Your task to perform on an android device: change your default location settings in chrome Image 0: 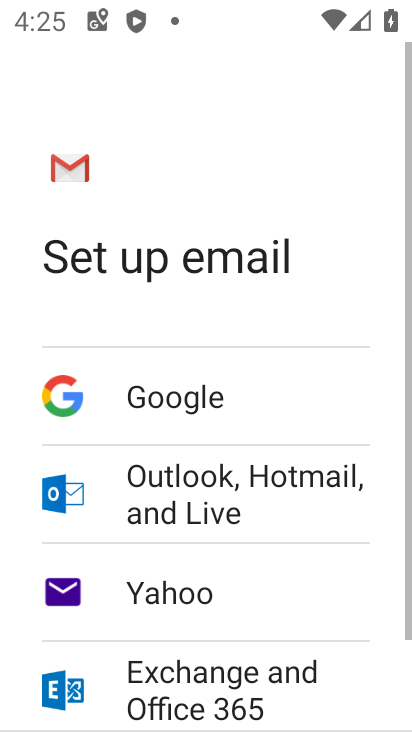
Step 0: press home button
Your task to perform on an android device: change your default location settings in chrome Image 1: 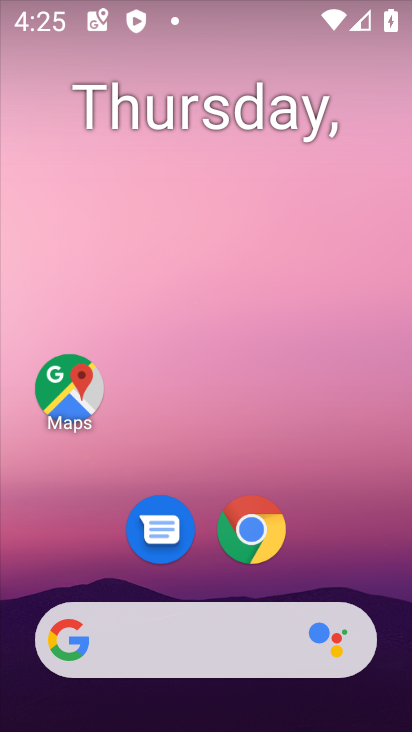
Step 1: click (253, 538)
Your task to perform on an android device: change your default location settings in chrome Image 2: 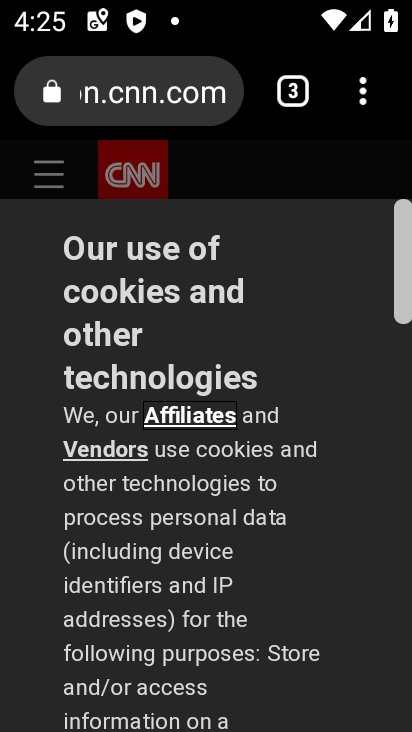
Step 2: click (366, 101)
Your task to perform on an android device: change your default location settings in chrome Image 3: 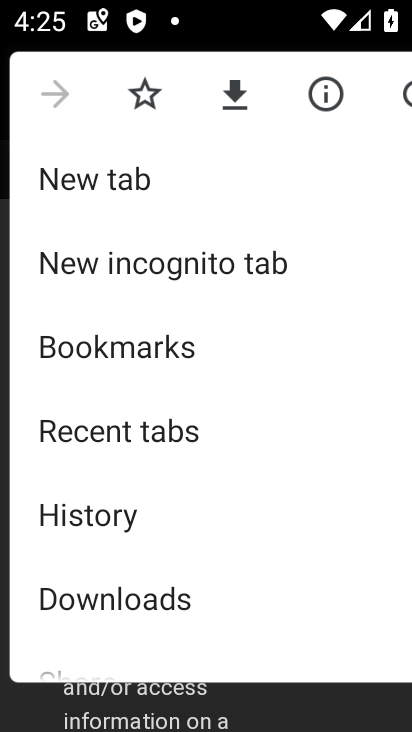
Step 3: drag from (193, 606) to (149, 252)
Your task to perform on an android device: change your default location settings in chrome Image 4: 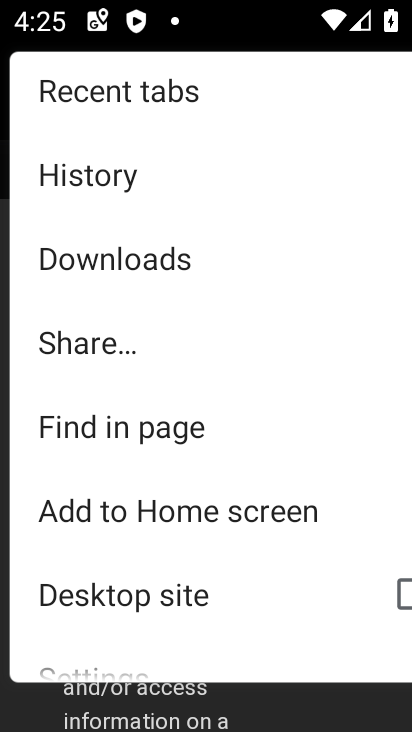
Step 4: drag from (119, 632) to (101, 303)
Your task to perform on an android device: change your default location settings in chrome Image 5: 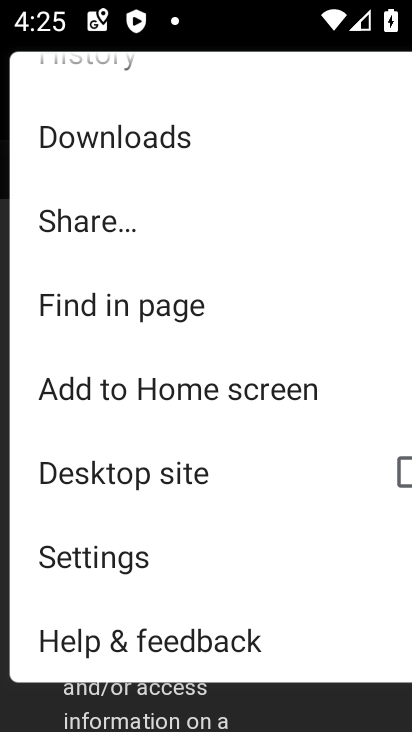
Step 5: click (95, 555)
Your task to perform on an android device: change your default location settings in chrome Image 6: 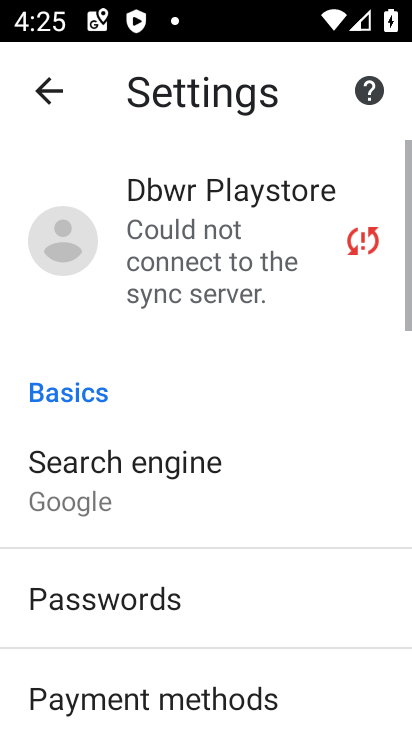
Step 6: drag from (119, 654) to (119, 245)
Your task to perform on an android device: change your default location settings in chrome Image 7: 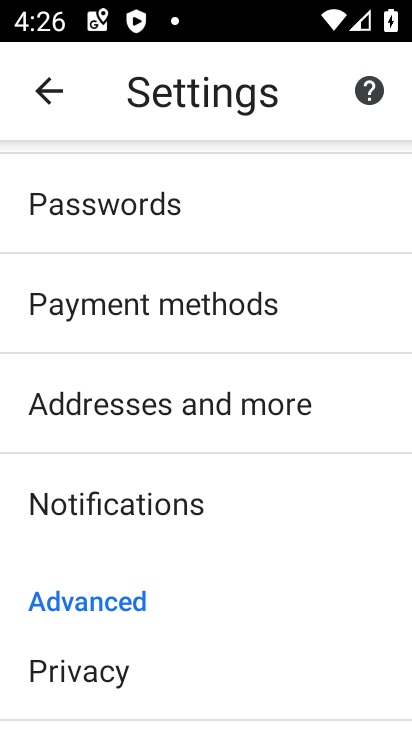
Step 7: drag from (126, 609) to (126, 289)
Your task to perform on an android device: change your default location settings in chrome Image 8: 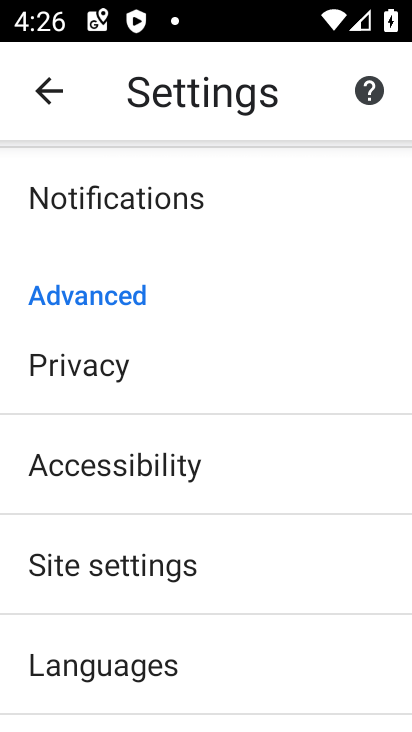
Step 8: drag from (104, 656) to (108, 323)
Your task to perform on an android device: change your default location settings in chrome Image 9: 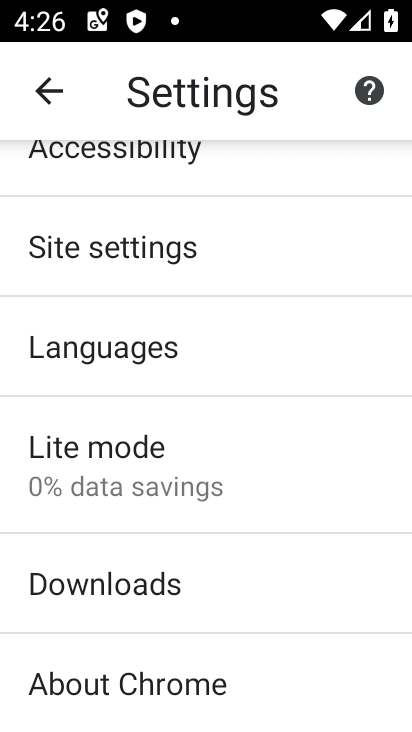
Step 9: click (98, 246)
Your task to perform on an android device: change your default location settings in chrome Image 10: 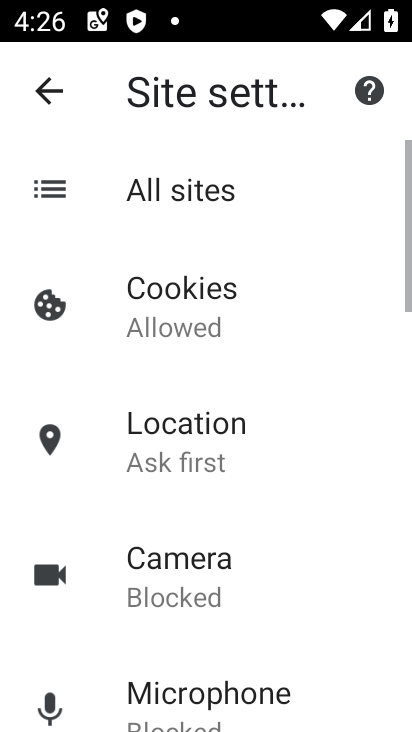
Step 10: drag from (169, 660) to (175, 424)
Your task to perform on an android device: change your default location settings in chrome Image 11: 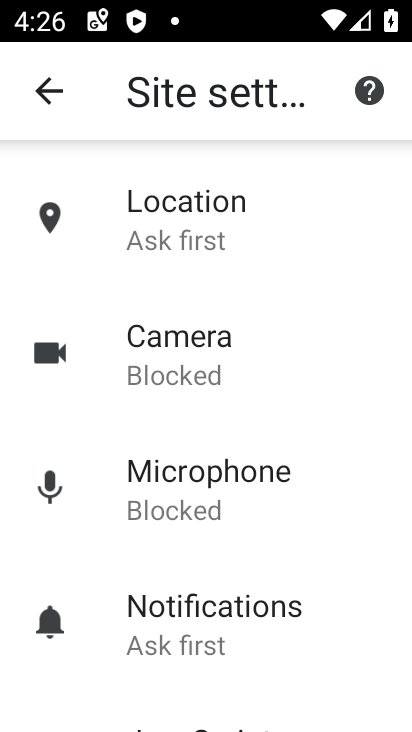
Step 11: click (166, 213)
Your task to perform on an android device: change your default location settings in chrome Image 12: 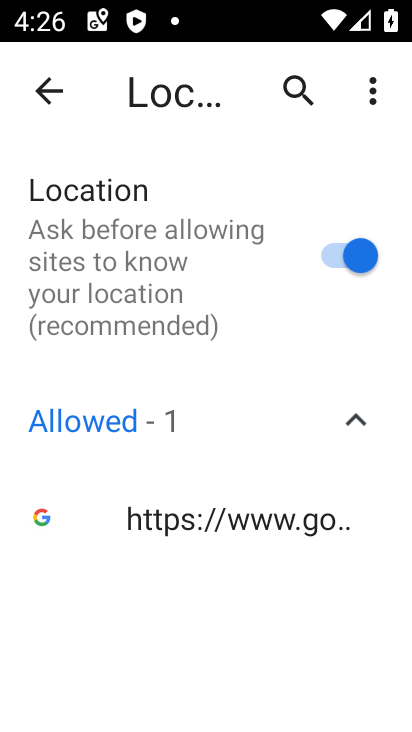
Step 12: click (333, 253)
Your task to perform on an android device: change your default location settings in chrome Image 13: 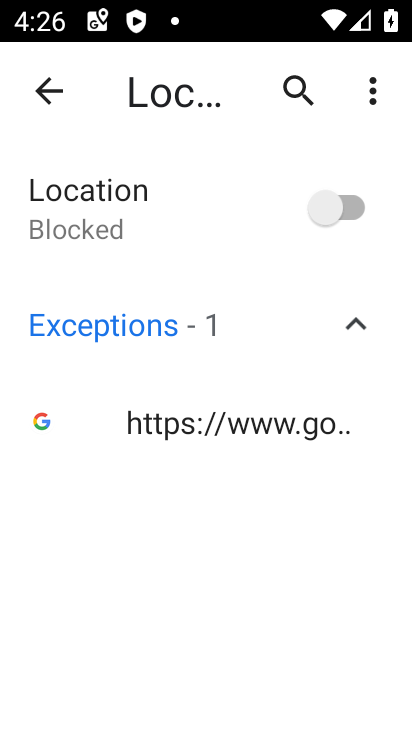
Step 13: task complete